Your task to perform on an android device: delete browsing data in the chrome app Image 0: 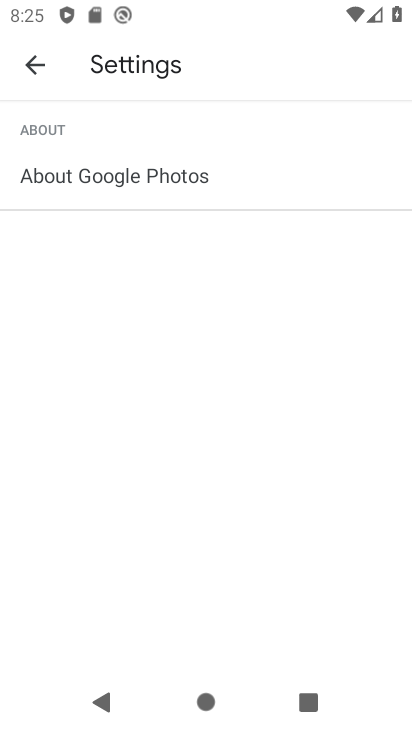
Step 0: press home button
Your task to perform on an android device: delete browsing data in the chrome app Image 1: 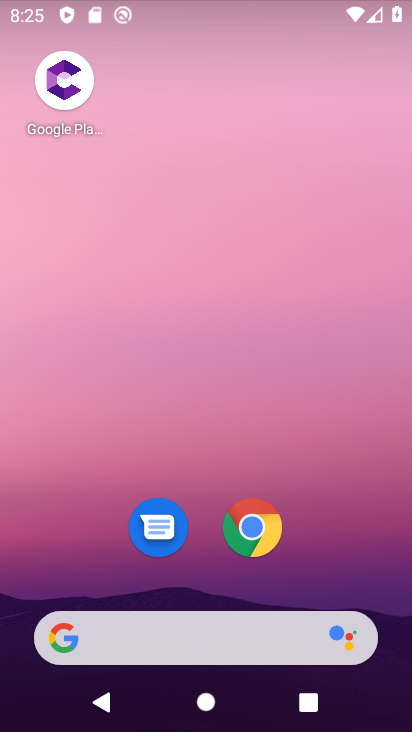
Step 1: drag from (367, 497) to (319, 131)
Your task to perform on an android device: delete browsing data in the chrome app Image 2: 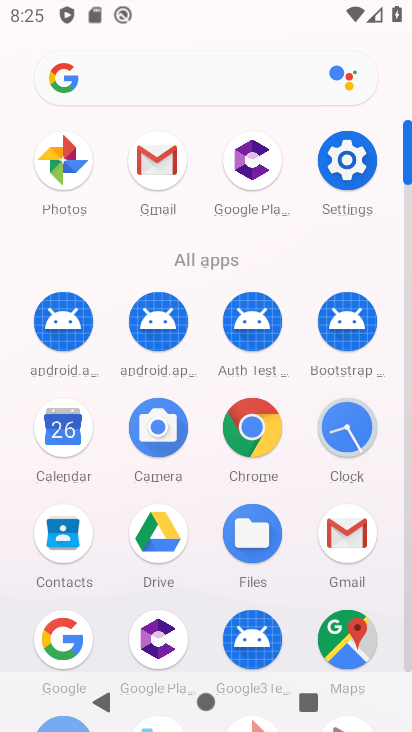
Step 2: click (247, 437)
Your task to perform on an android device: delete browsing data in the chrome app Image 3: 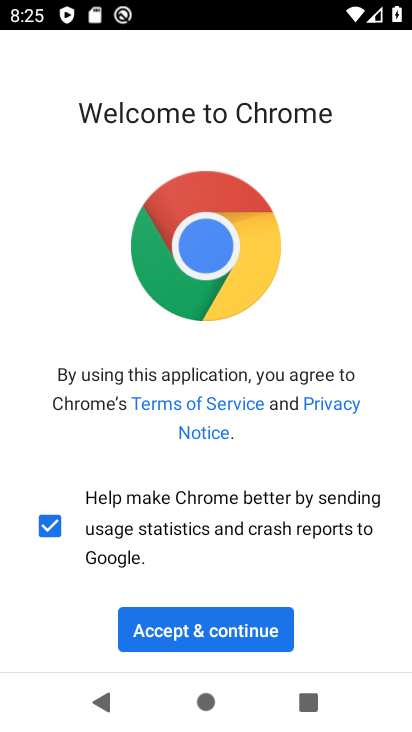
Step 3: click (239, 642)
Your task to perform on an android device: delete browsing data in the chrome app Image 4: 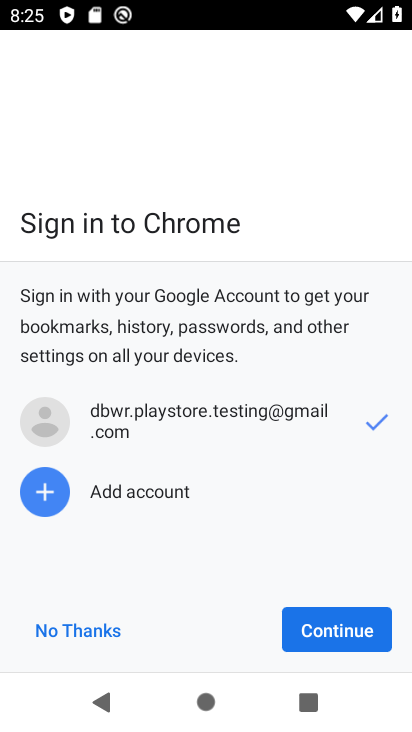
Step 4: click (372, 626)
Your task to perform on an android device: delete browsing data in the chrome app Image 5: 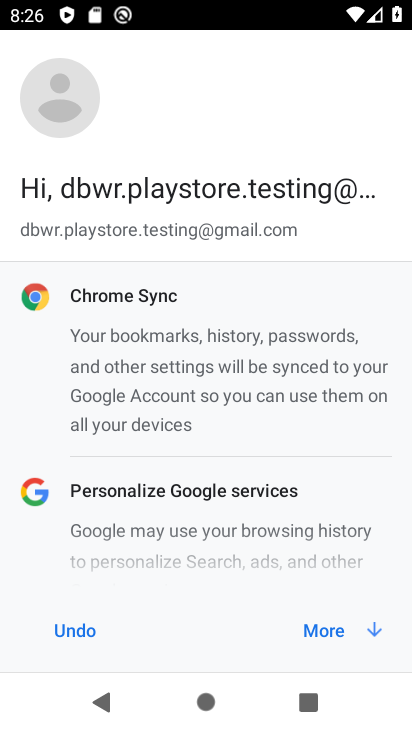
Step 5: press home button
Your task to perform on an android device: delete browsing data in the chrome app Image 6: 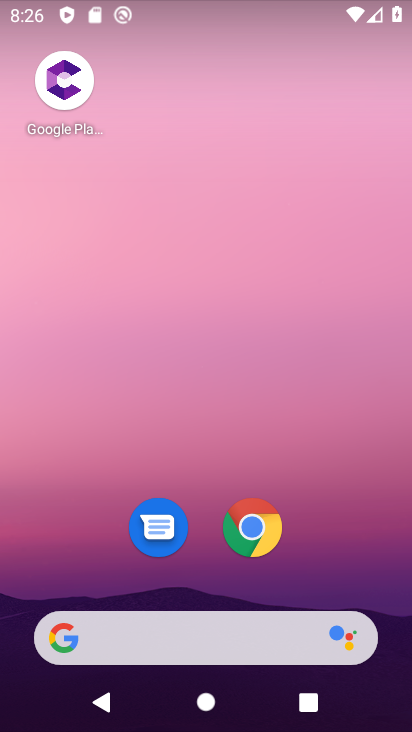
Step 6: click (266, 531)
Your task to perform on an android device: delete browsing data in the chrome app Image 7: 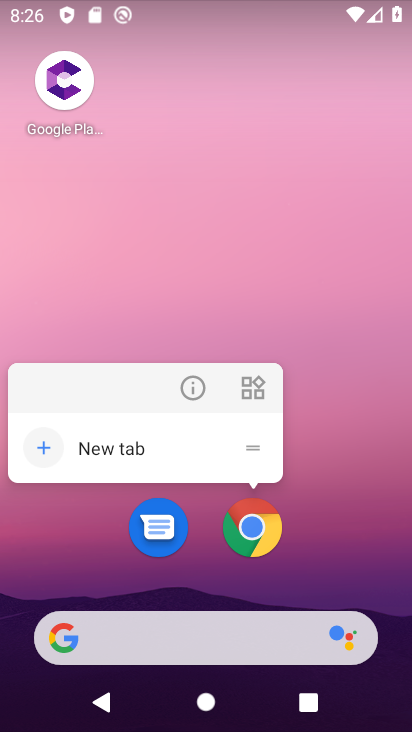
Step 7: click (256, 528)
Your task to perform on an android device: delete browsing data in the chrome app Image 8: 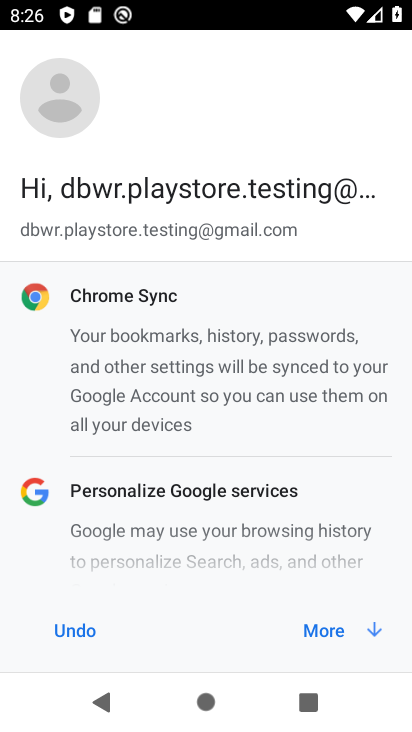
Step 8: click (314, 631)
Your task to perform on an android device: delete browsing data in the chrome app Image 9: 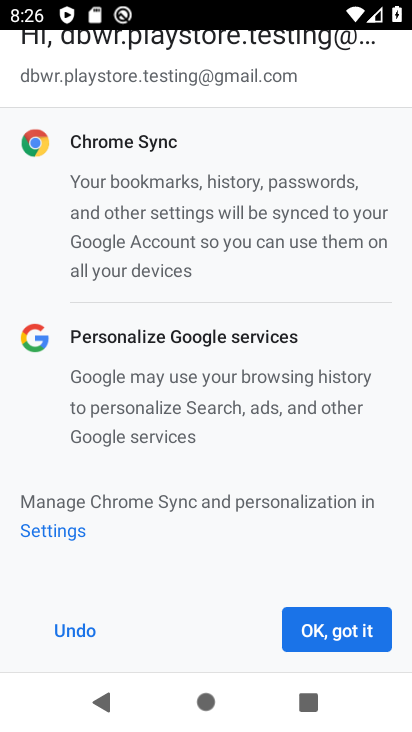
Step 9: click (314, 631)
Your task to perform on an android device: delete browsing data in the chrome app Image 10: 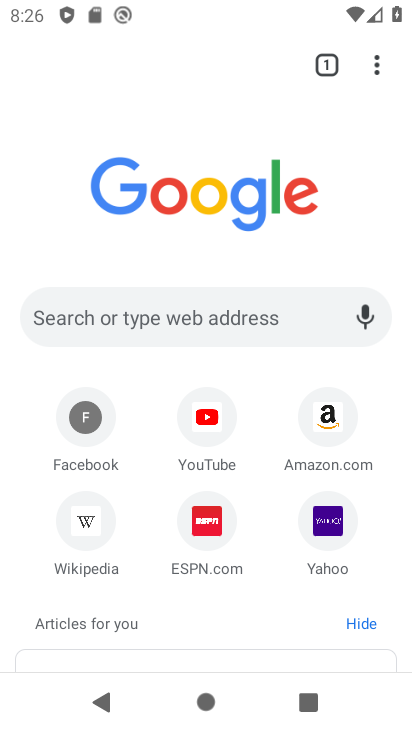
Step 10: click (376, 58)
Your task to perform on an android device: delete browsing data in the chrome app Image 11: 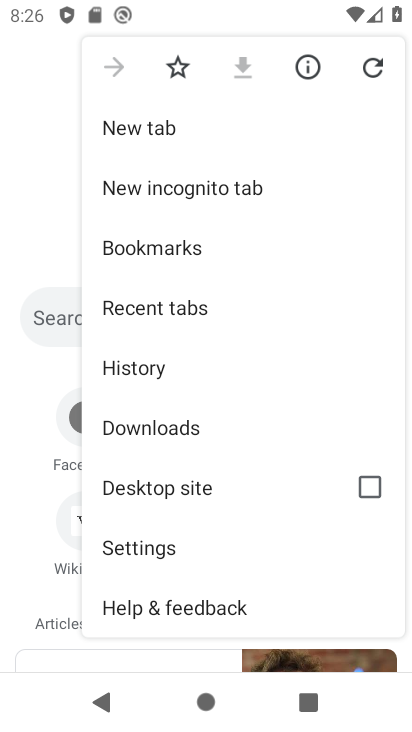
Step 11: click (145, 376)
Your task to perform on an android device: delete browsing data in the chrome app Image 12: 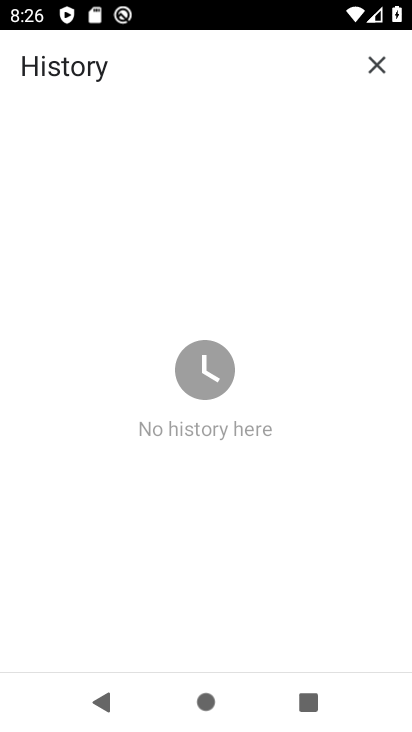
Step 12: task complete